Your task to perform on an android device: set default search engine in the chrome app Image 0: 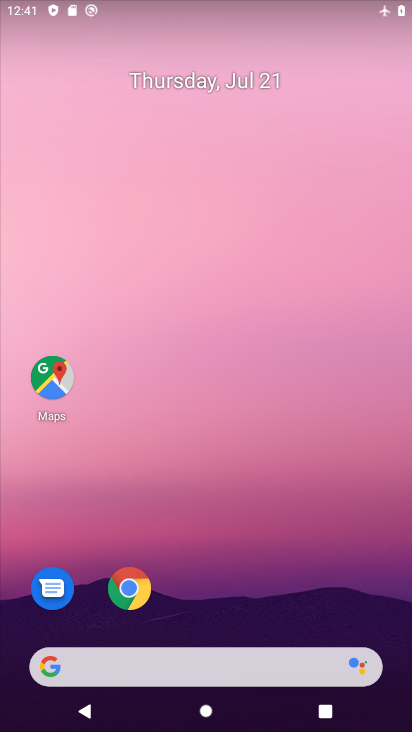
Step 0: click (142, 587)
Your task to perform on an android device: set default search engine in the chrome app Image 1: 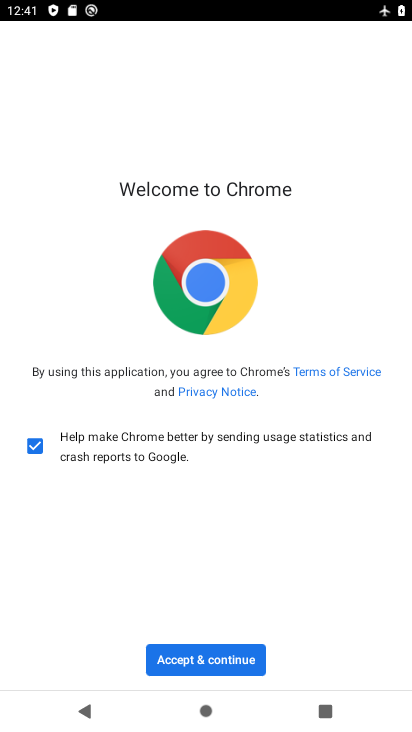
Step 1: click (194, 658)
Your task to perform on an android device: set default search engine in the chrome app Image 2: 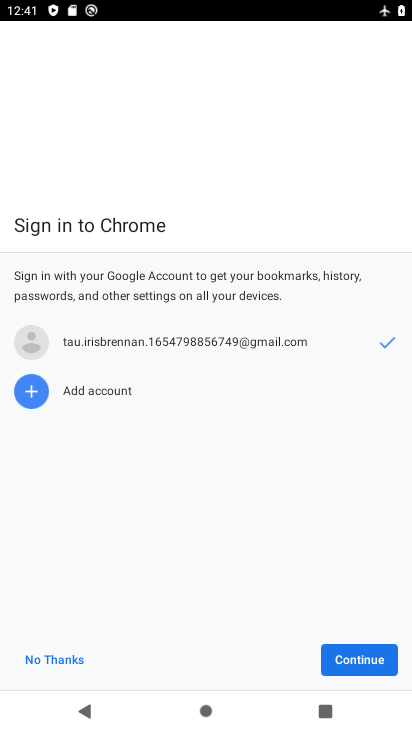
Step 2: click (344, 665)
Your task to perform on an android device: set default search engine in the chrome app Image 3: 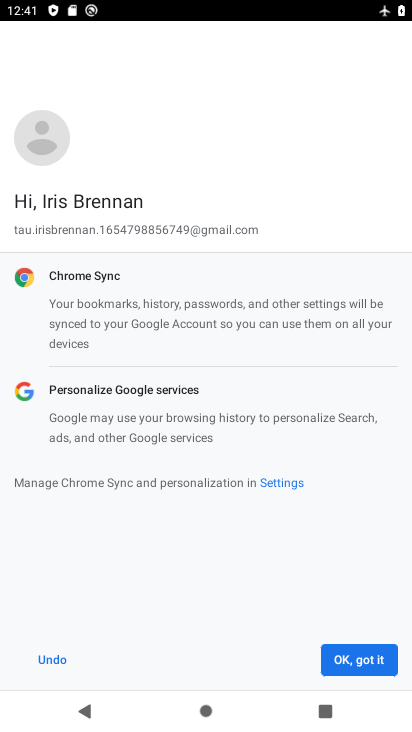
Step 3: click (344, 665)
Your task to perform on an android device: set default search engine in the chrome app Image 4: 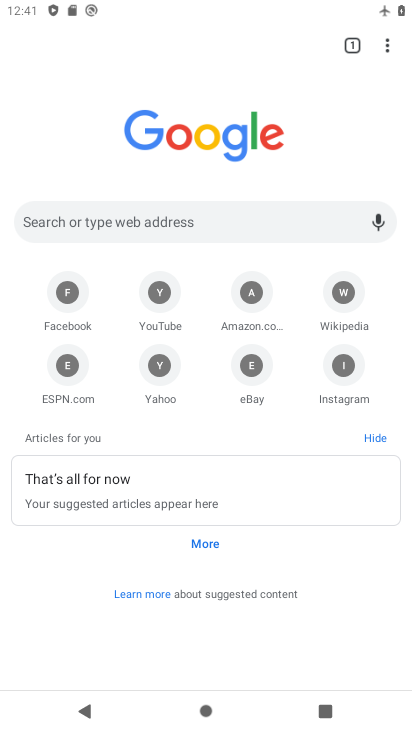
Step 4: click (391, 37)
Your task to perform on an android device: set default search engine in the chrome app Image 5: 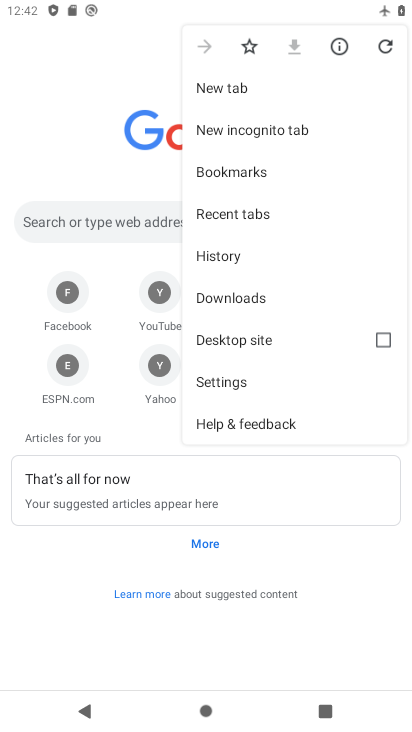
Step 5: click (248, 383)
Your task to perform on an android device: set default search engine in the chrome app Image 6: 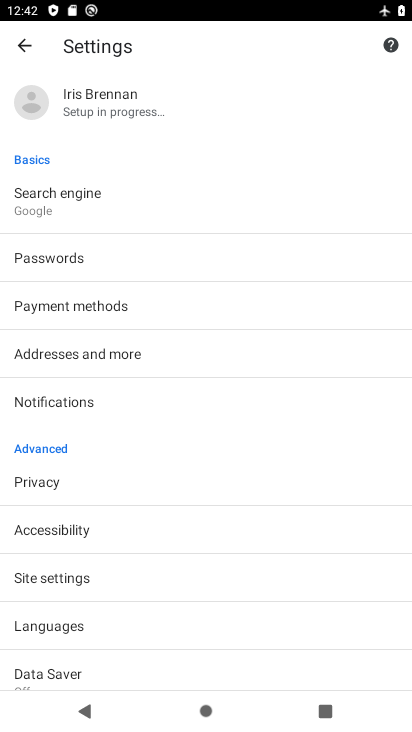
Step 6: click (220, 212)
Your task to perform on an android device: set default search engine in the chrome app Image 7: 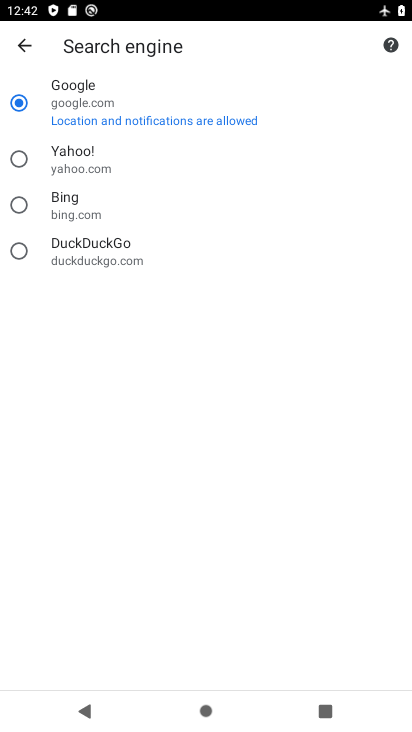
Step 7: click (227, 158)
Your task to perform on an android device: set default search engine in the chrome app Image 8: 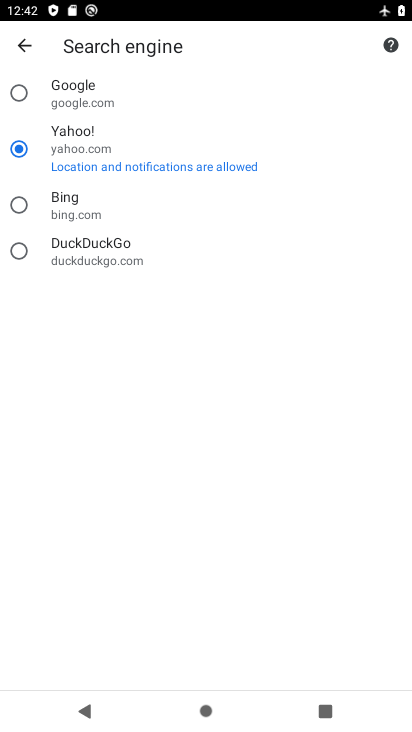
Step 8: task complete